Your task to perform on an android device: Go to network settings Image 0: 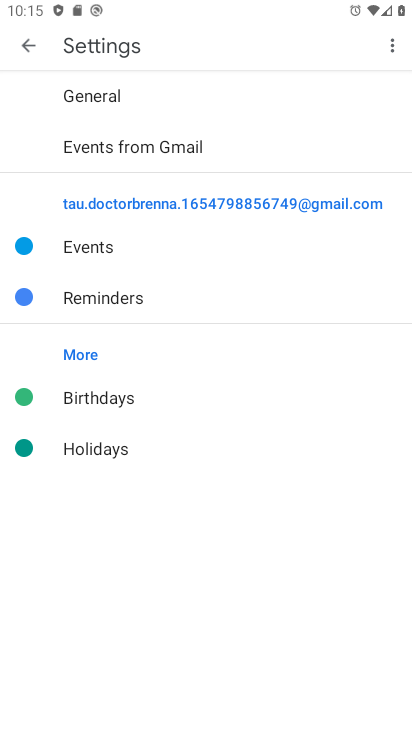
Step 0: press home button
Your task to perform on an android device: Go to network settings Image 1: 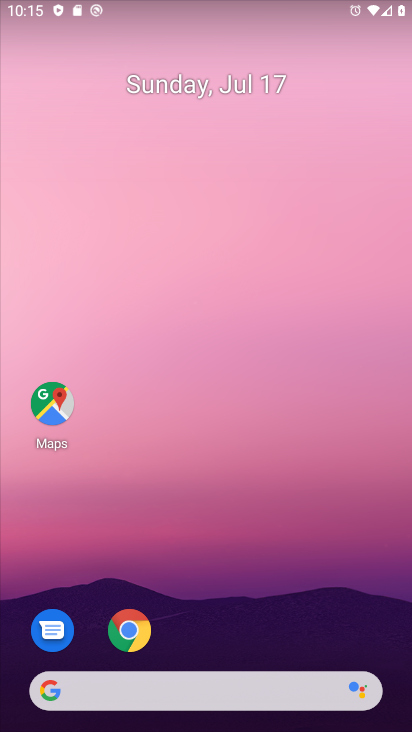
Step 1: drag from (329, 615) to (361, 81)
Your task to perform on an android device: Go to network settings Image 2: 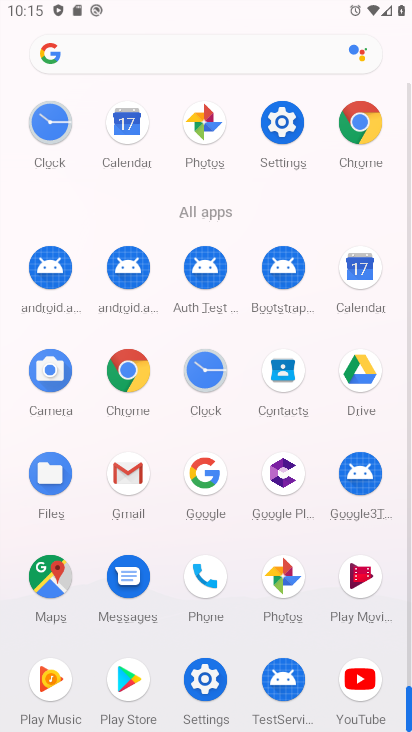
Step 2: click (286, 139)
Your task to perform on an android device: Go to network settings Image 3: 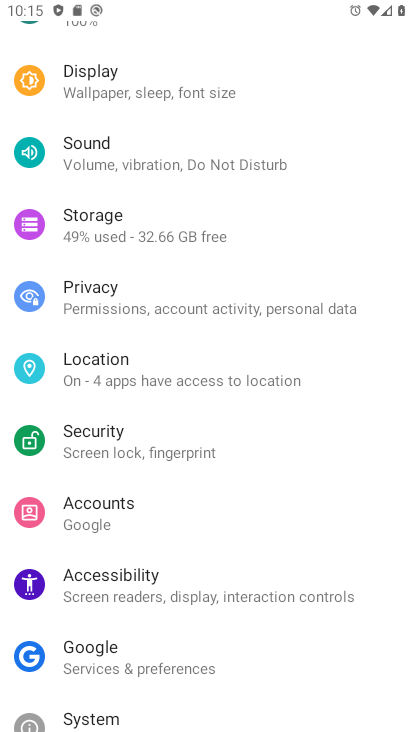
Step 3: drag from (340, 151) to (367, 301)
Your task to perform on an android device: Go to network settings Image 4: 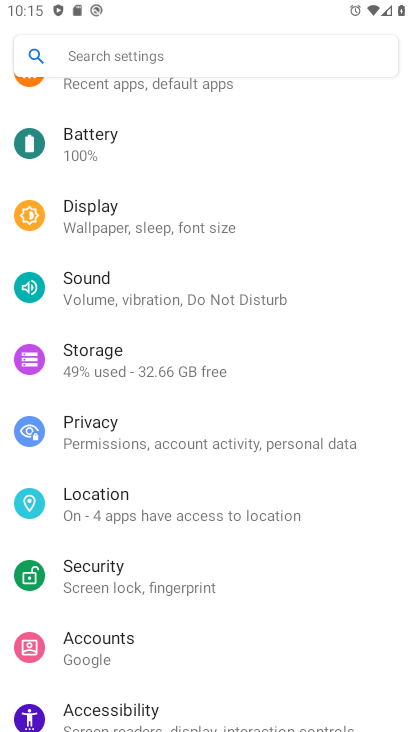
Step 4: drag from (360, 131) to (360, 258)
Your task to perform on an android device: Go to network settings Image 5: 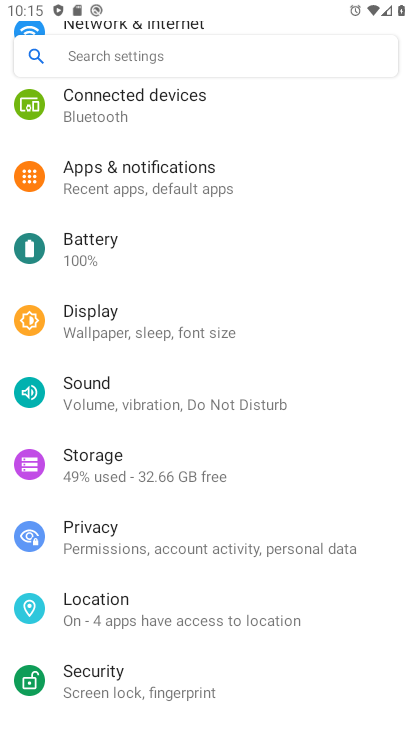
Step 5: drag from (343, 126) to (338, 258)
Your task to perform on an android device: Go to network settings Image 6: 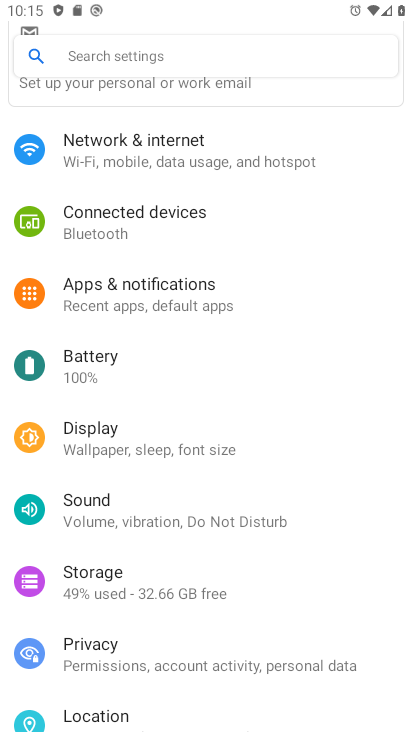
Step 6: drag from (337, 124) to (326, 329)
Your task to perform on an android device: Go to network settings Image 7: 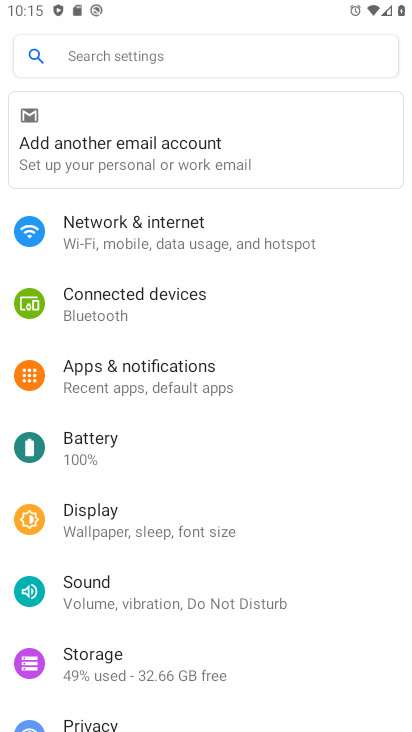
Step 7: drag from (301, 429) to (307, 354)
Your task to perform on an android device: Go to network settings Image 8: 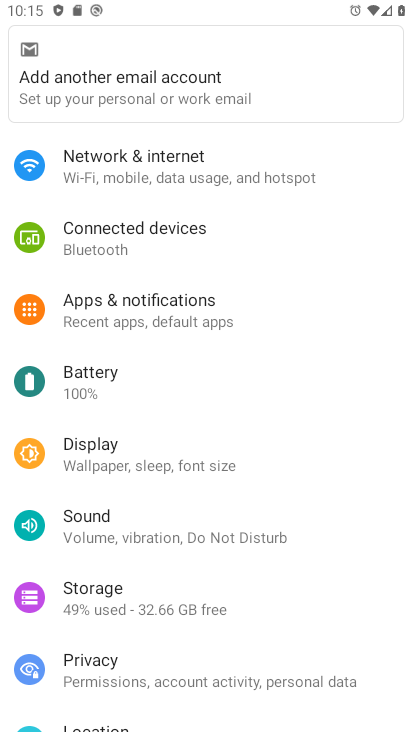
Step 8: drag from (317, 248) to (305, 378)
Your task to perform on an android device: Go to network settings Image 9: 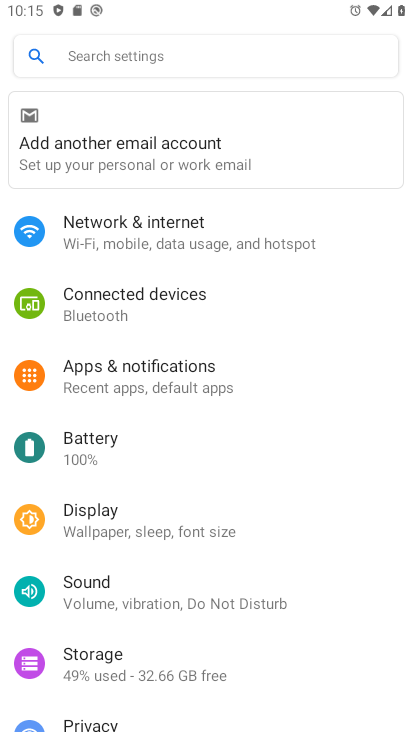
Step 9: click (281, 231)
Your task to perform on an android device: Go to network settings Image 10: 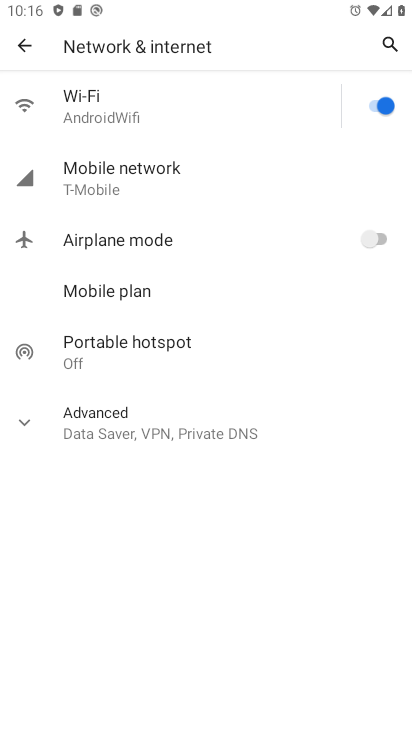
Step 10: task complete